Your task to perform on an android device: change the clock display to show seconds Image 0: 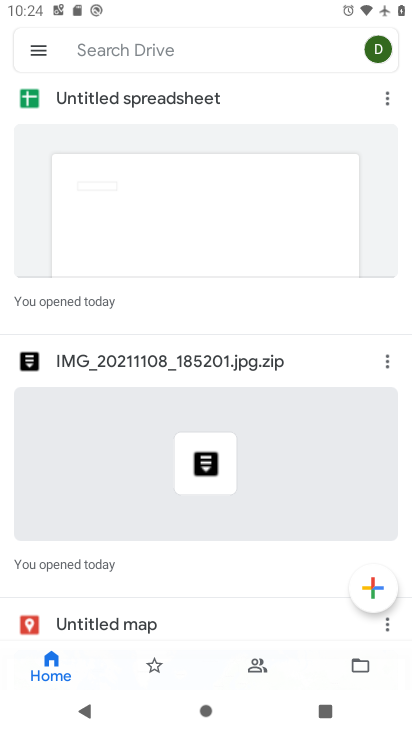
Step 0: press home button
Your task to perform on an android device: change the clock display to show seconds Image 1: 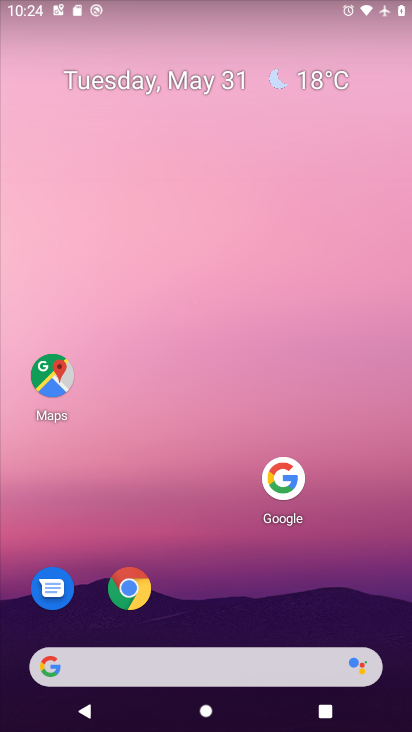
Step 1: drag from (171, 663) to (279, 193)
Your task to perform on an android device: change the clock display to show seconds Image 2: 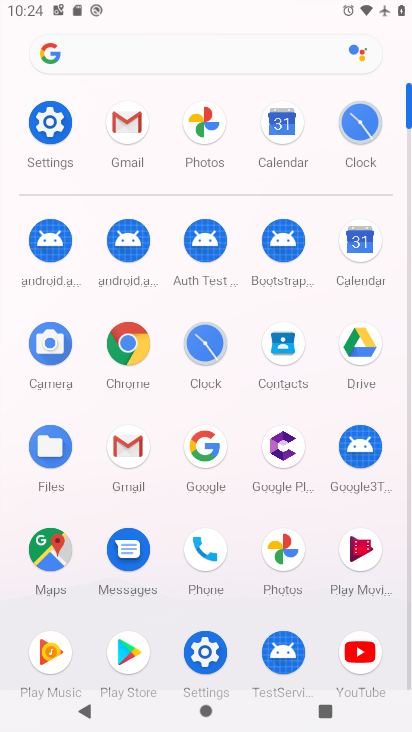
Step 2: click (212, 349)
Your task to perform on an android device: change the clock display to show seconds Image 3: 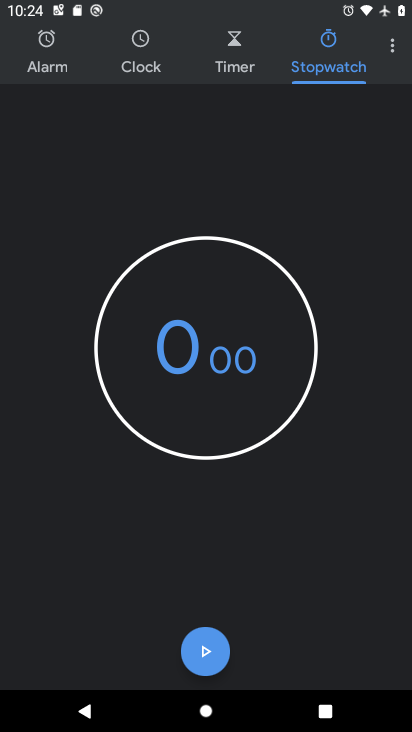
Step 3: click (390, 42)
Your task to perform on an android device: change the clock display to show seconds Image 4: 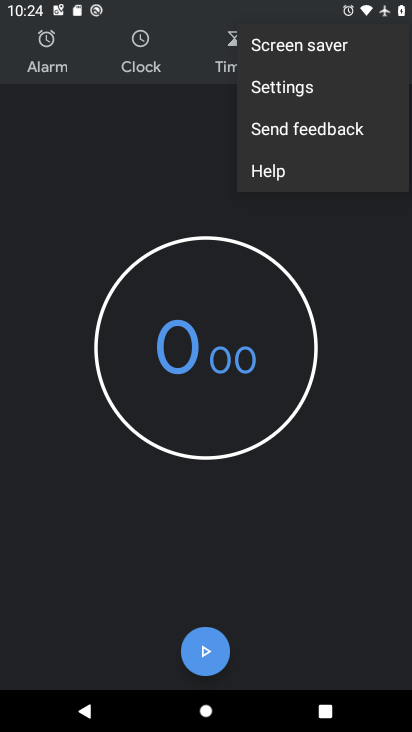
Step 4: click (282, 85)
Your task to perform on an android device: change the clock display to show seconds Image 5: 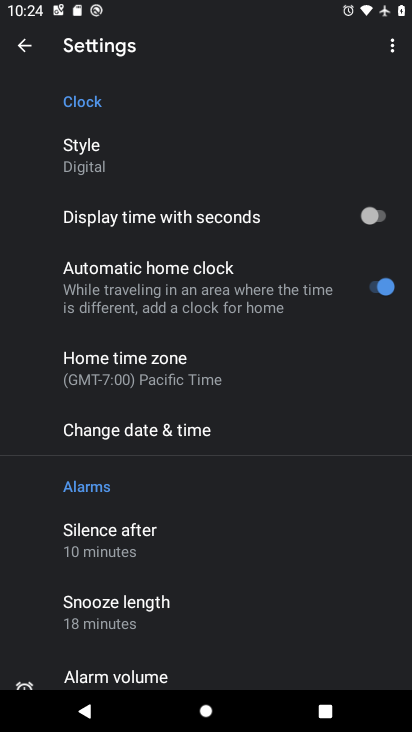
Step 5: click (382, 212)
Your task to perform on an android device: change the clock display to show seconds Image 6: 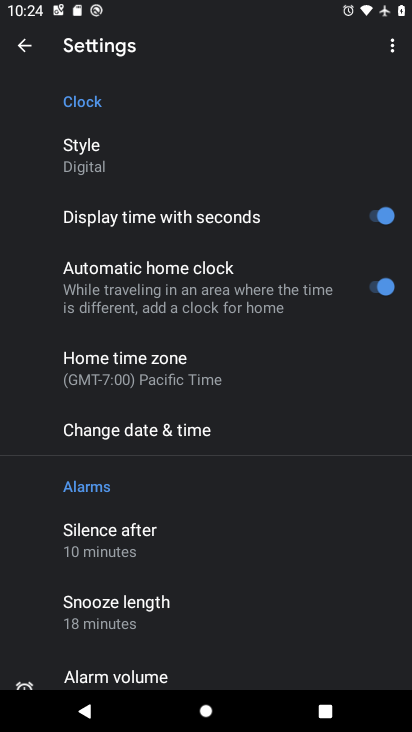
Step 6: task complete